Your task to perform on an android device: toggle javascript in the chrome app Image 0: 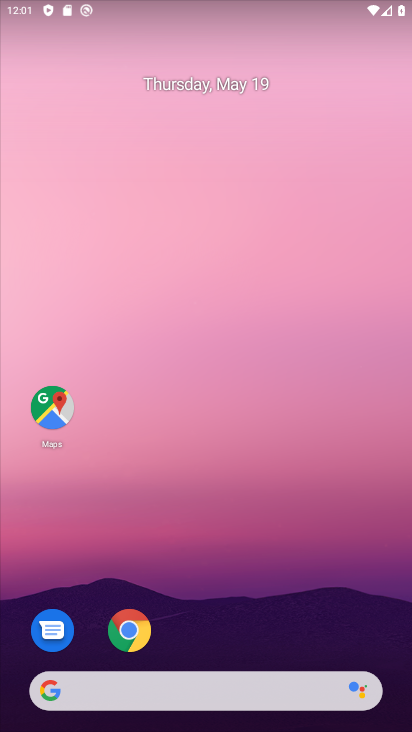
Step 0: drag from (197, 43) to (165, 27)
Your task to perform on an android device: toggle javascript in the chrome app Image 1: 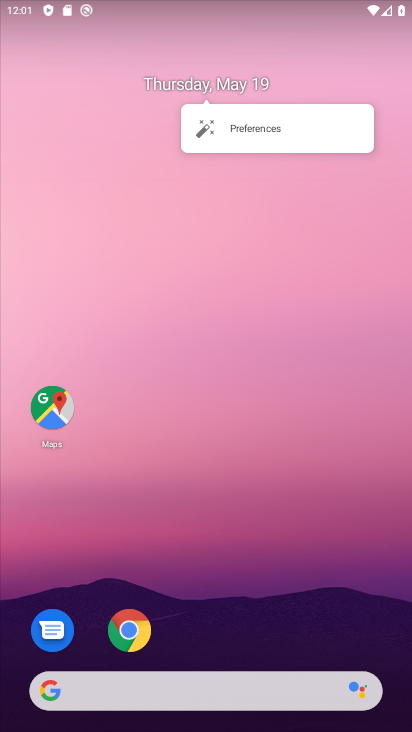
Step 1: click (130, 628)
Your task to perform on an android device: toggle javascript in the chrome app Image 2: 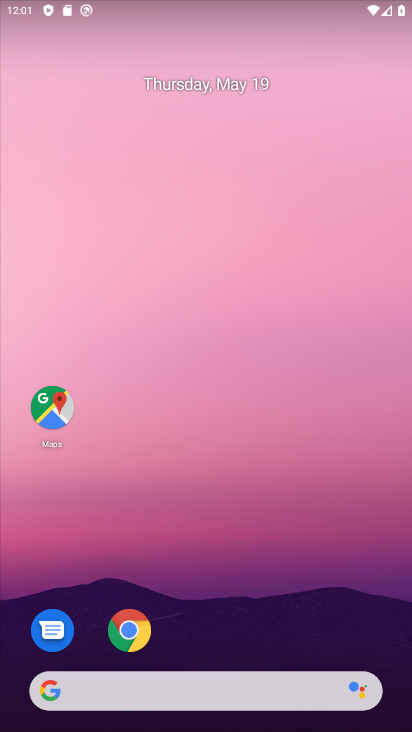
Step 2: click (127, 630)
Your task to perform on an android device: toggle javascript in the chrome app Image 3: 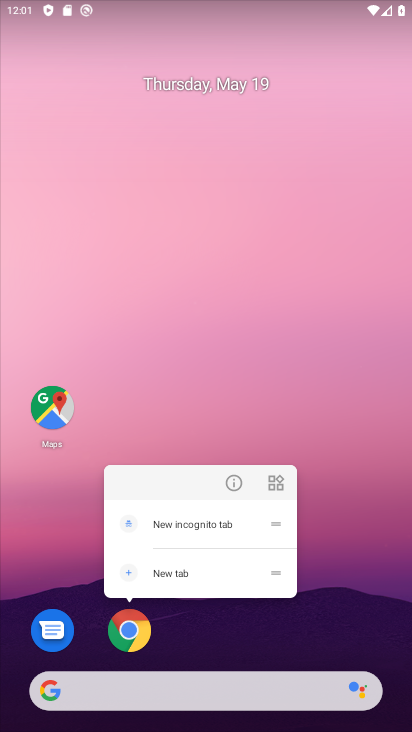
Step 3: click (223, 481)
Your task to perform on an android device: toggle javascript in the chrome app Image 4: 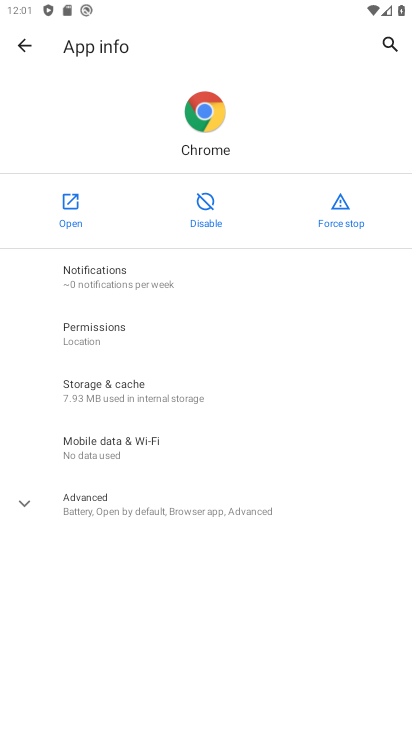
Step 4: click (47, 203)
Your task to perform on an android device: toggle javascript in the chrome app Image 5: 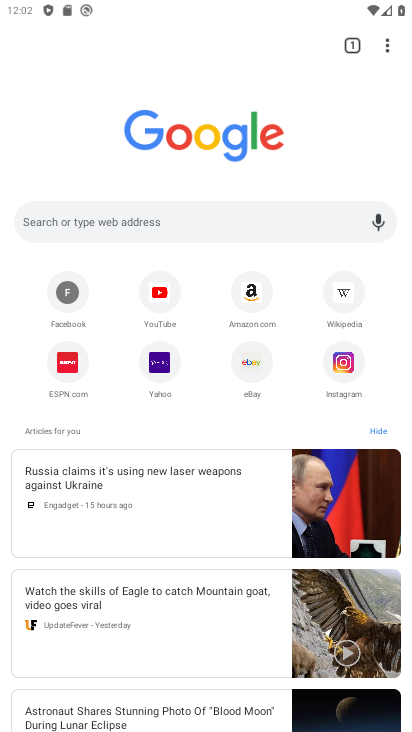
Step 5: click (387, 46)
Your task to perform on an android device: toggle javascript in the chrome app Image 6: 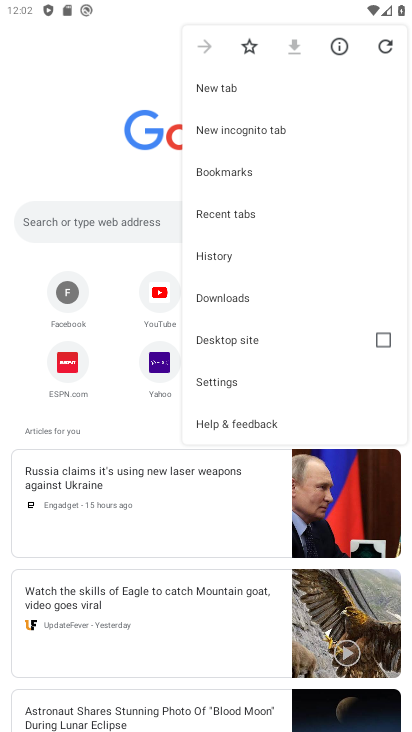
Step 6: click (242, 384)
Your task to perform on an android device: toggle javascript in the chrome app Image 7: 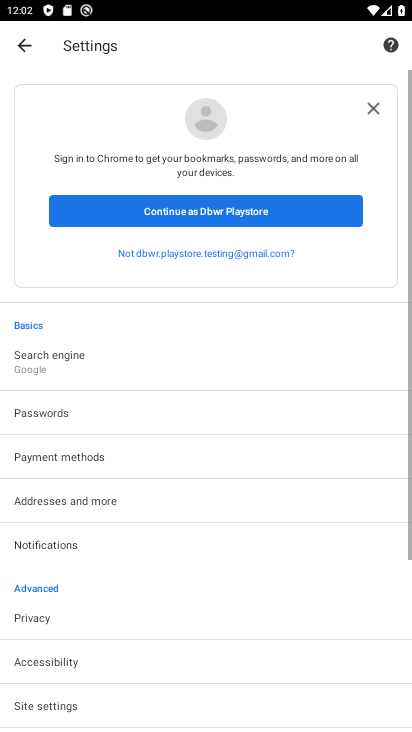
Step 7: drag from (146, 619) to (220, 180)
Your task to perform on an android device: toggle javascript in the chrome app Image 8: 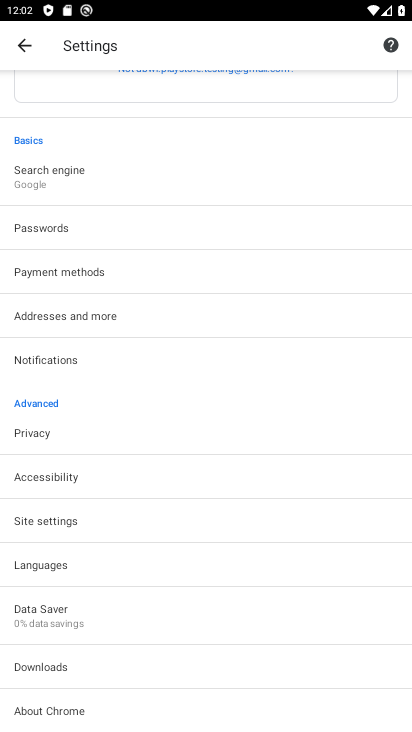
Step 8: click (69, 522)
Your task to perform on an android device: toggle javascript in the chrome app Image 9: 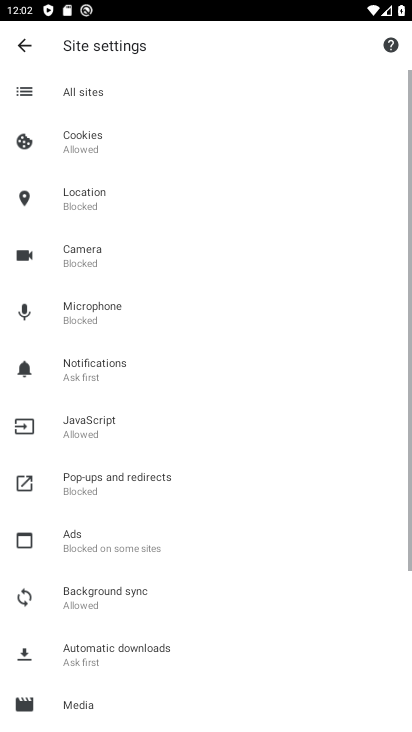
Step 9: drag from (264, 560) to (329, 194)
Your task to perform on an android device: toggle javascript in the chrome app Image 10: 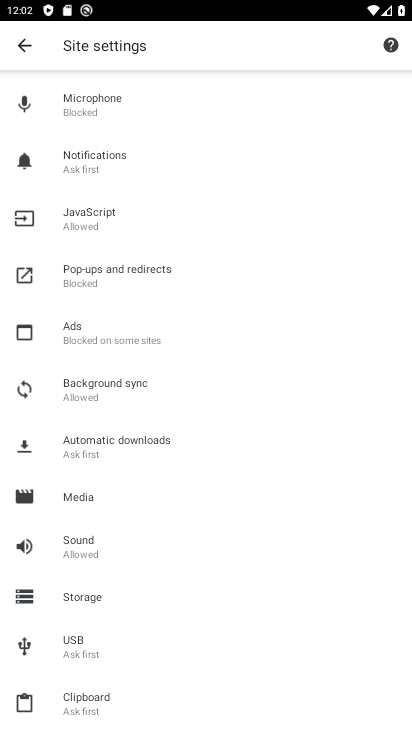
Step 10: click (87, 233)
Your task to perform on an android device: toggle javascript in the chrome app Image 11: 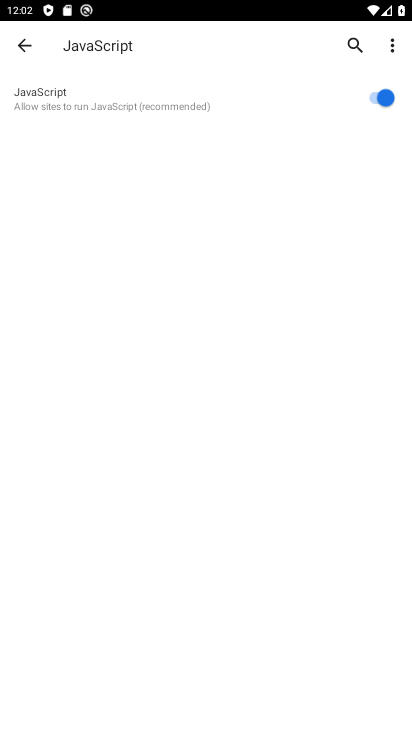
Step 11: click (382, 103)
Your task to perform on an android device: toggle javascript in the chrome app Image 12: 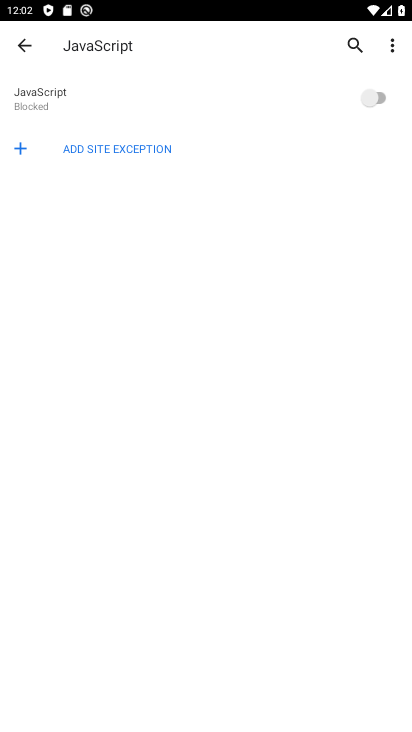
Step 12: task complete